Your task to perform on an android device: turn on wifi Image 0: 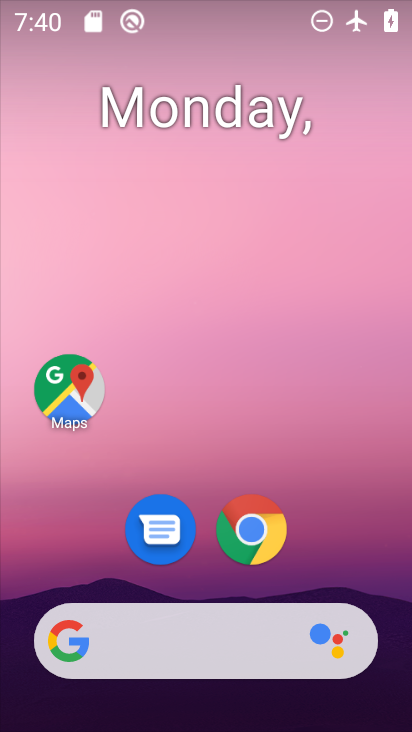
Step 0: drag from (331, 518) to (222, 143)
Your task to perform on an android device: turn on wifi Image 1: 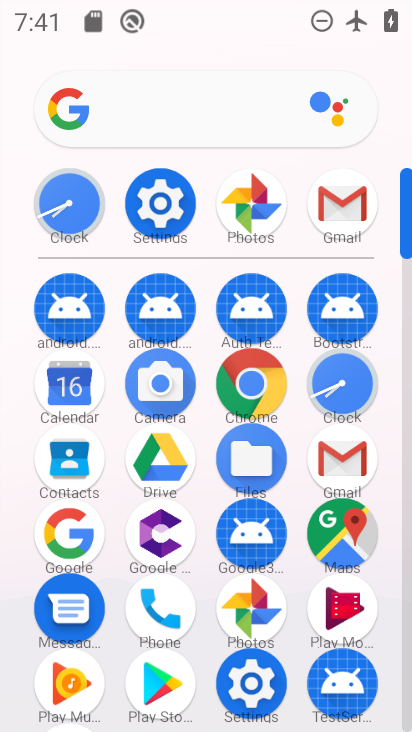
Step 1: click (157, 205)
Your task to perform on an android device: turn on wifi Image 2: 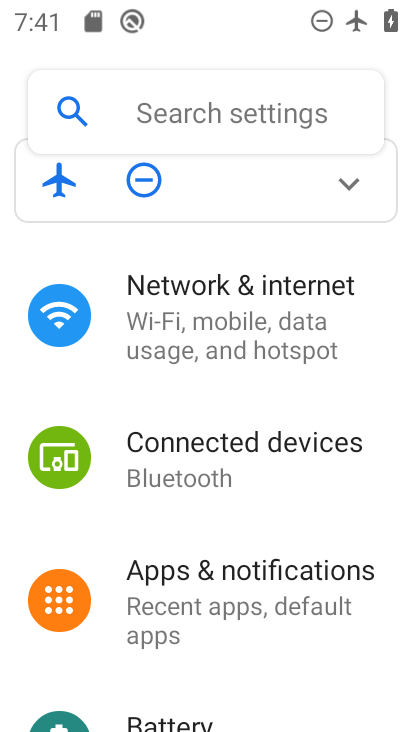
Step 2: click (216, 285)
Your task to perform on an android device: turn on wifi Image 3: 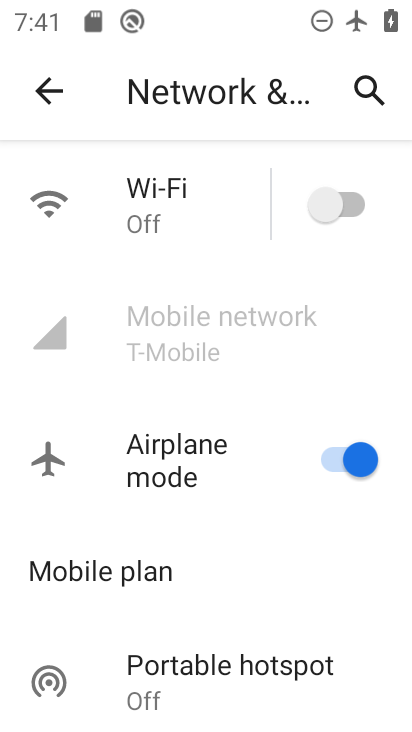
Step 3: click (332, 198)
Your task to perform on an android device: turn on wifi Image 4: 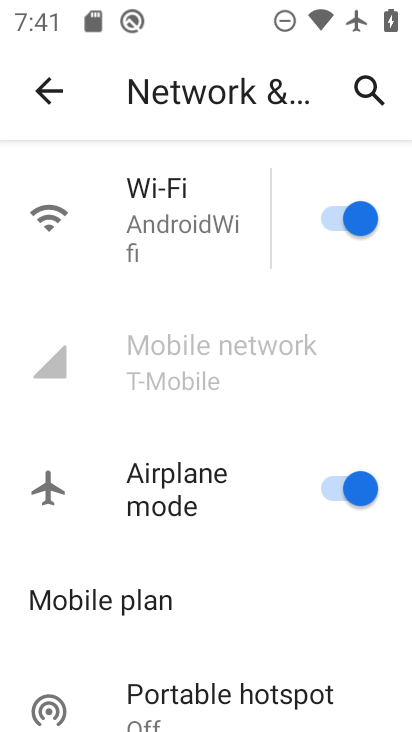
Step 4: task complete